Your task to perform on an android device: refresh tabs in the chrome app Image 0: 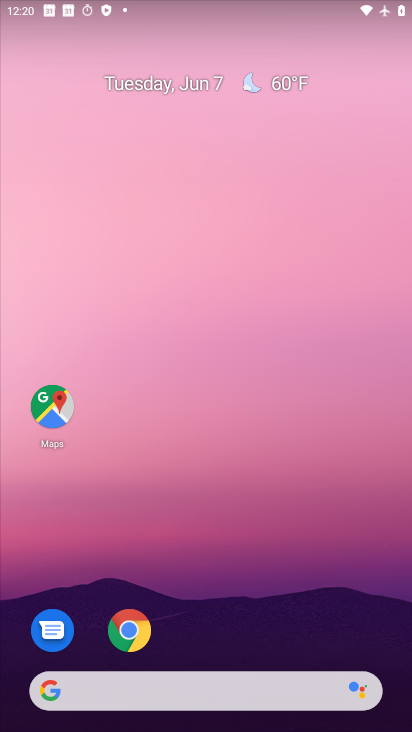
Step 0: drag from (322, 623) to (188, 95)
Your task to perform on an android device: refresh tabs in the chrome app Image 1: 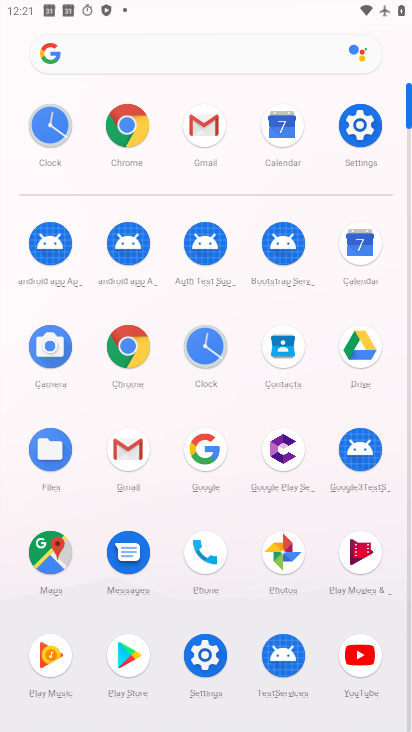
Step 1: click (126, 372)
Your task to perform on an android device: refresh tabs in the chrome app Image 2: 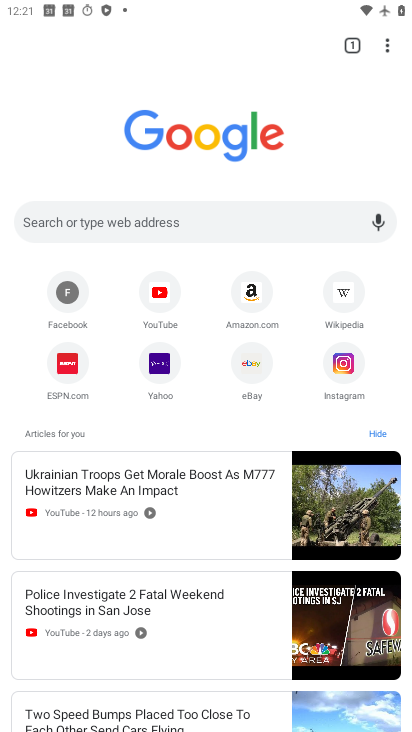
Step 2: click (384, 44)
Your task to perform on an android device: refresh tabs in the chrome app Image 3: 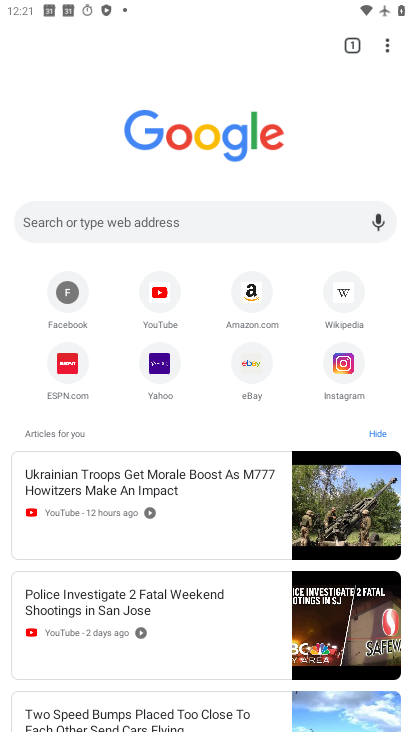
Step 3: click (384, 38)
Your task to perform on an android device: refresh tabs in the chrome app Image 4: 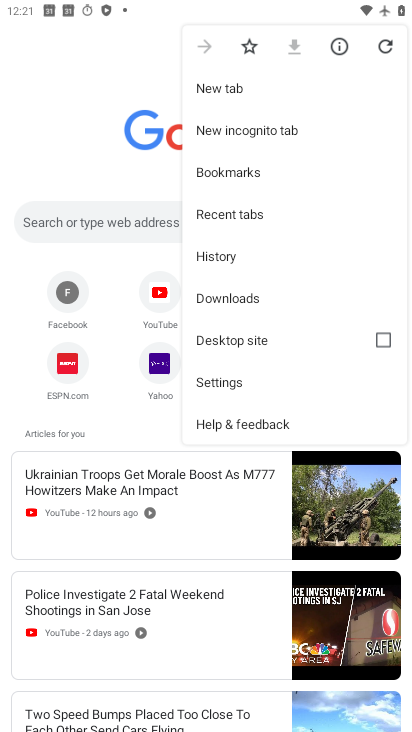
Step 4: click (388, 46)
Your task to perform on an android device: refresh tabs in the chrome app Image 5: 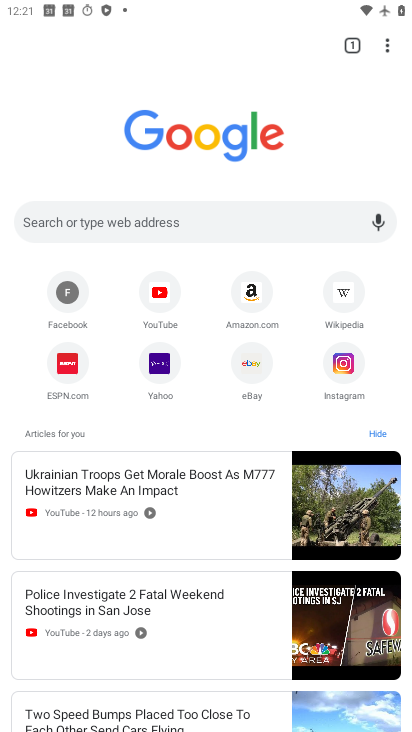
Step 5: task complete